Your task to perform on an android device: empty trash in the gmail app Image 0: 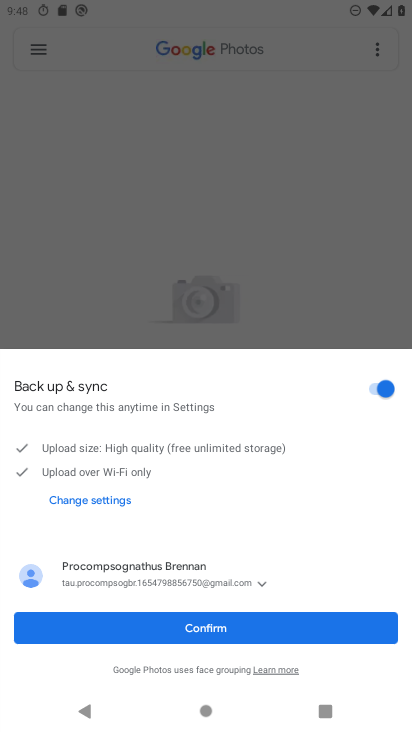
Step 0: click (247, 630)
Your task to perform on an android device: empty trash in the gmail app Image 1: 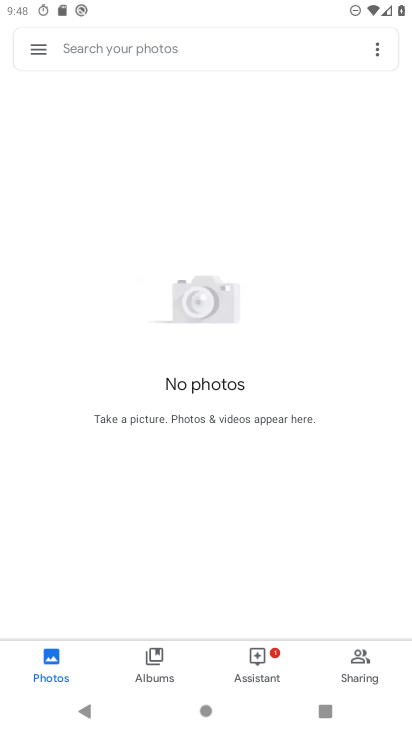
Step 1: click (46, 49)
Your task to perform on an android device: empty trash in the gmail app Image 2: 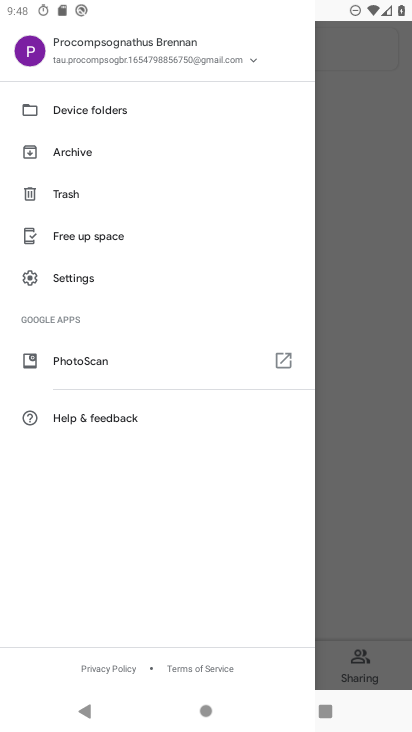
Step 2: click (93, 190)
Your task to perform on an android device: empty trash in the gmail app Image 3: 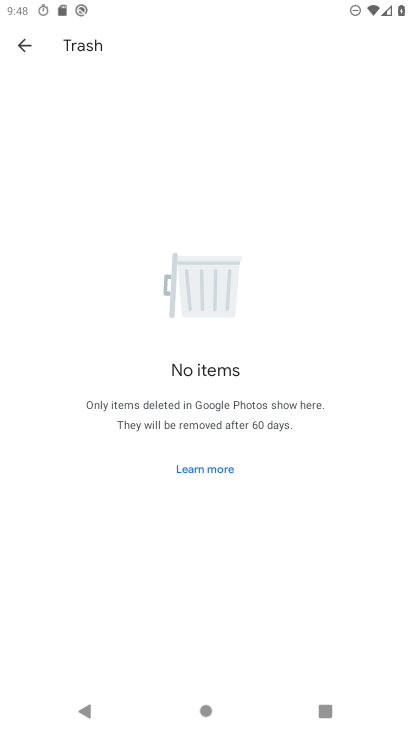
Step 3: task complete